Your task to perform on an android device: toggle priority inbox in the gmail app Image 0: 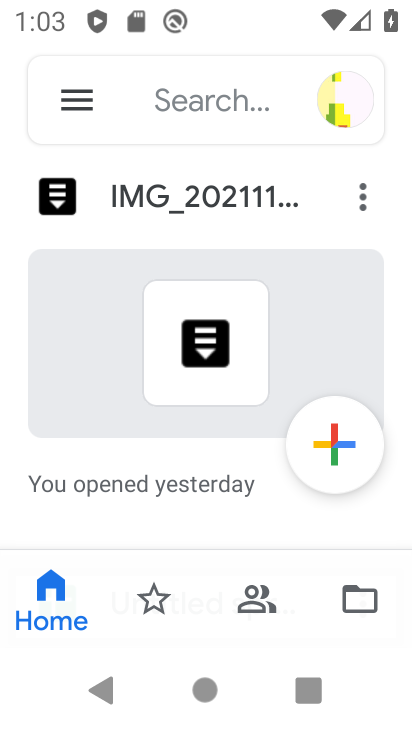
Step 0: press home button
Your task to perform on an android device: toggle priority inbox in the gmail app Image 1: 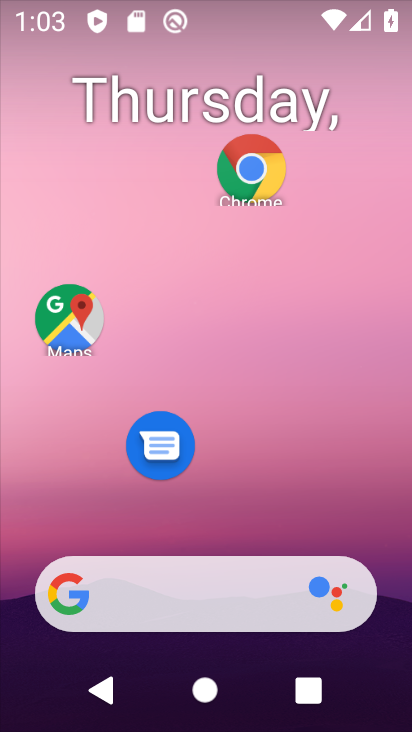
Step 1: drag from (238, 610) to (317, 233)
Your task to perform on an android device: toggle priority inbox in the gmail app Image 2: 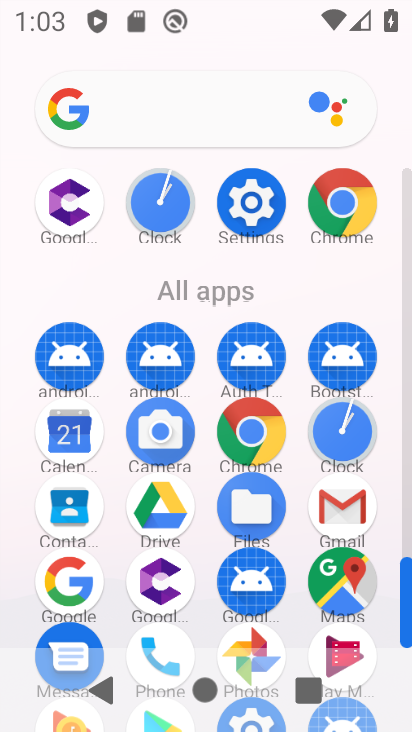
Step 2: click (326, 517)
Your task to perform on an android device: toggle priority inbox in the gmail app Image 3: 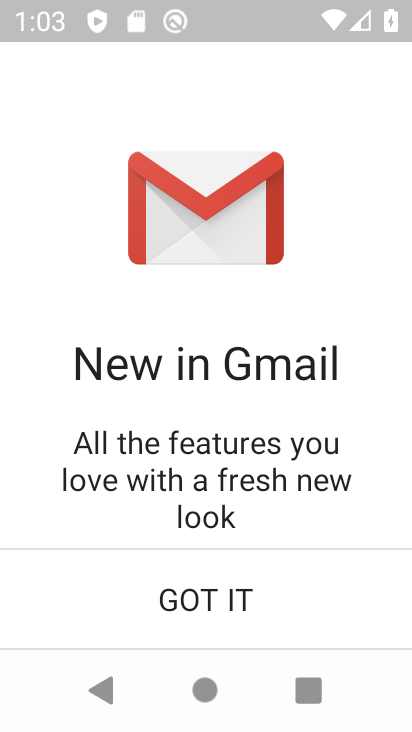
Step 3: click (194, 626)
Your task to perform on an android device: toggle priority inbox in the gmail app Image 4: 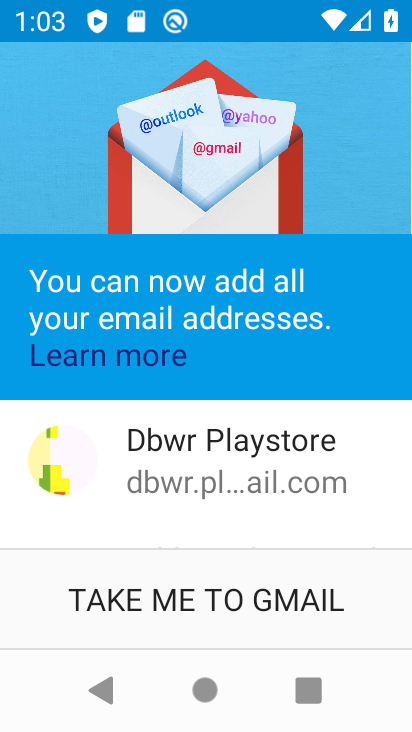
Step 4: click (192, 614)
Your task to perform on an android device: toggle priority inbox in the gmail app Image 5: 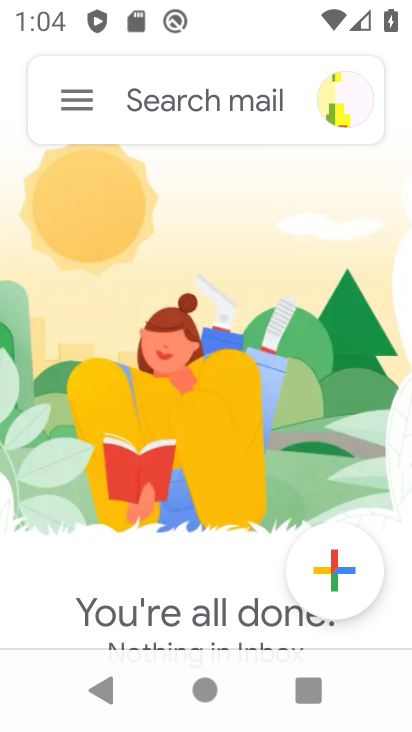
Step 5: click (77, 101)
Your task to perform on an android device: toggle priority inbox in the gmail app Image 6: 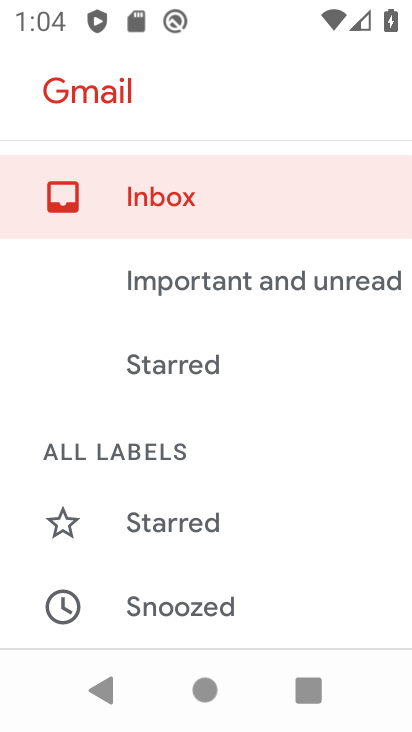
Step 6: drag from (163, 552) to (261, 381)
Your task to perform on an android device: toggle priority inbox in the gmail app Image 7: 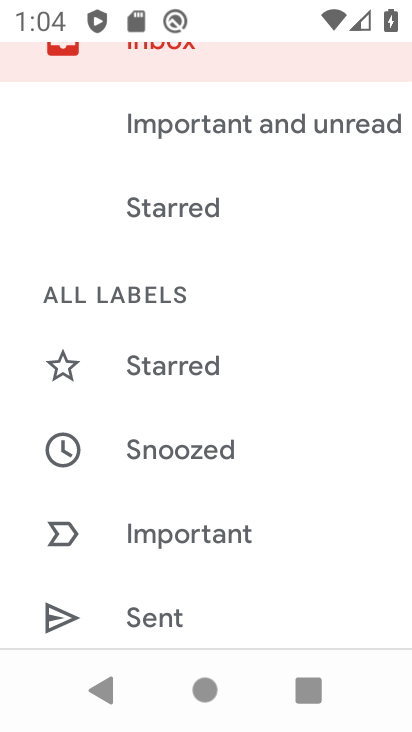
Step 7: drag from (182, 510) to (345, 198)
Your task to perform on an android device: toggle priority inbox in the gmail app Image 8: 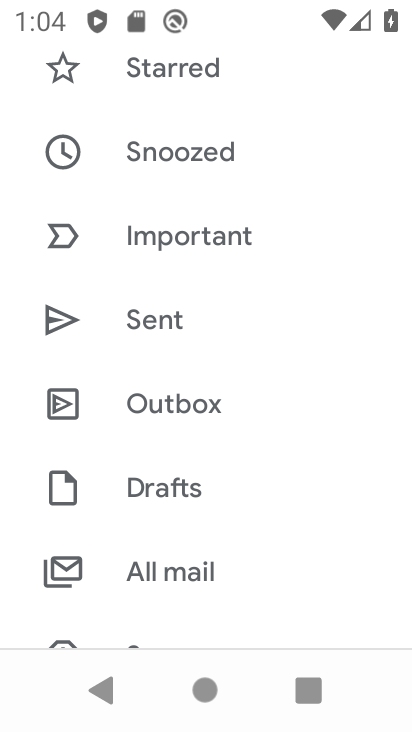
Step 8: drag from (181, 560) to (303, 231)
Your task to perform on an android device: toggle priority inbox in the gmail app Image 9: 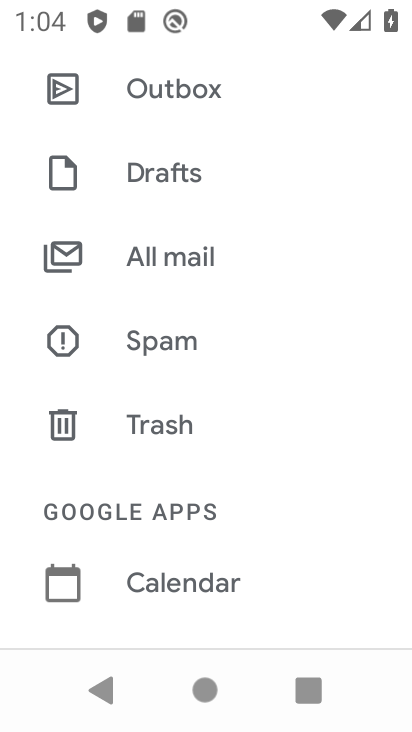
Step 9: drag from (131, 554) to (229, 240)
Your task to perform on an android device: toggle priority inbox in the gmail app Image 10: 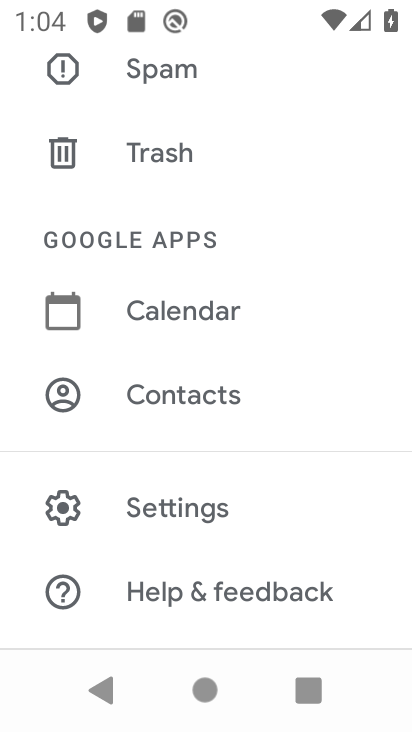
Step 10: click (100, 507)
Your task to perform on an android device: toggle priority inbox in the gmail app Image 11: 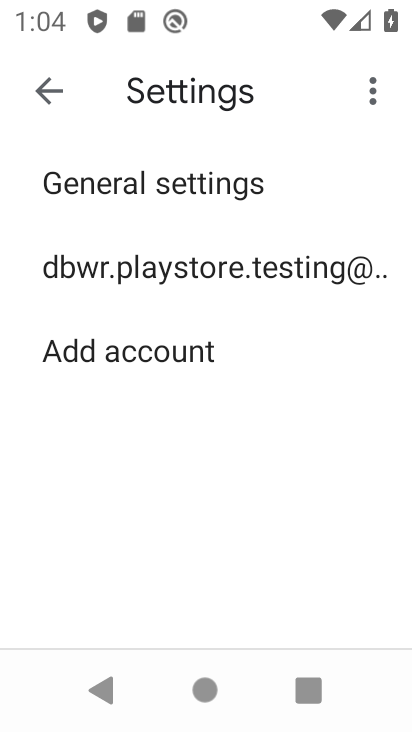
Step 11: click (158, 271)
Your task to perform on an android device: toggle priority inbox in the gmail app Image 12: 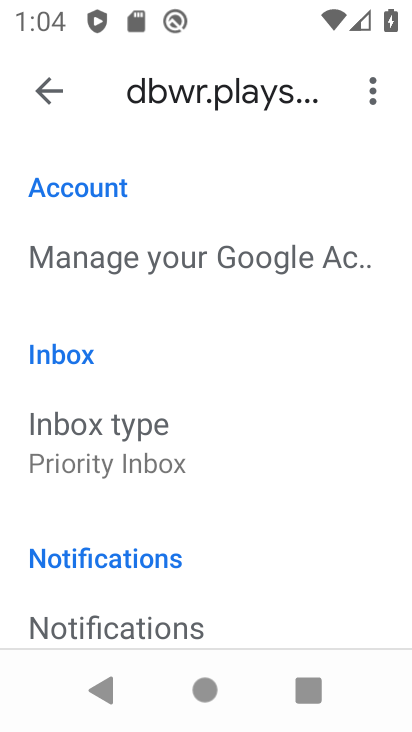
Step 12: click (102, 443)
Your task to perform on an android device: toggle priority inbox in the gmail app Image 13: 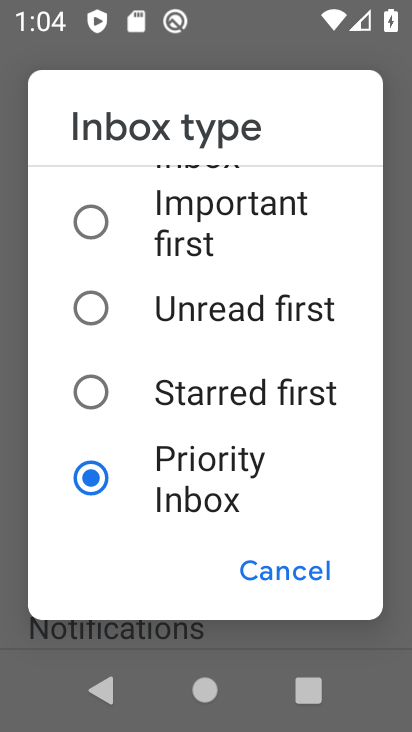
Step 13: task complete